Your task to perform on an android device: move an email to a new category in the gmail app Image 0: 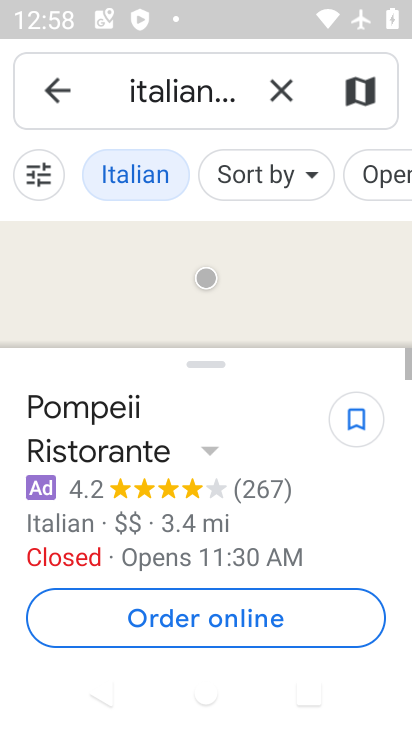
Step 0: press home button
Your task to perform on an android device: move an email to a new category in the gmail app Image 1: 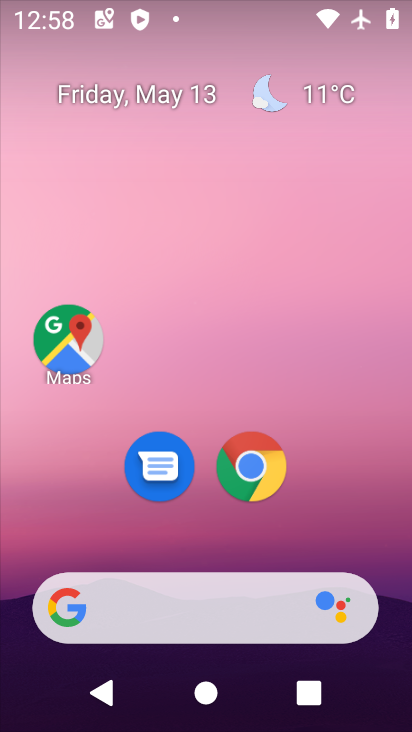
Step 1: drag from (273, 563) to (378, 2)
Your task to perform on an android device: move an email to a new category in the gmail app Image 2: 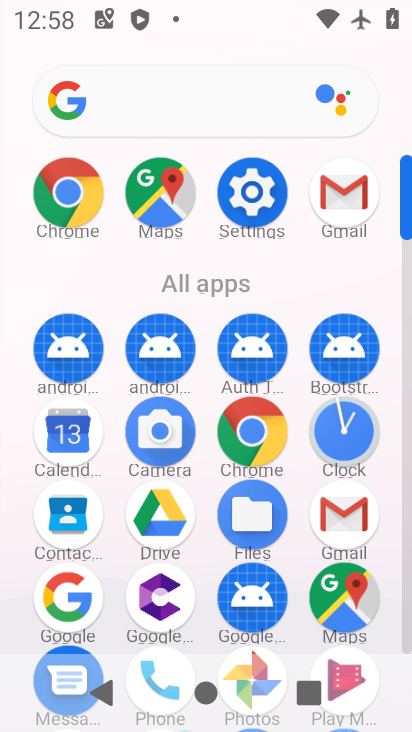
Step 2: click (333, 515)
Your task to perform on an android device: move an email to a new category in the gmail app Image 3: 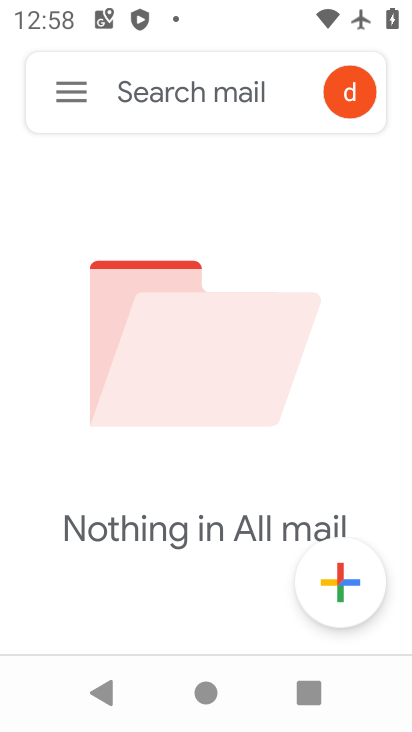
Step 3: click (88, 91)
Your task to perform on an android device: move an email to a new category in the gmail app Image 4: 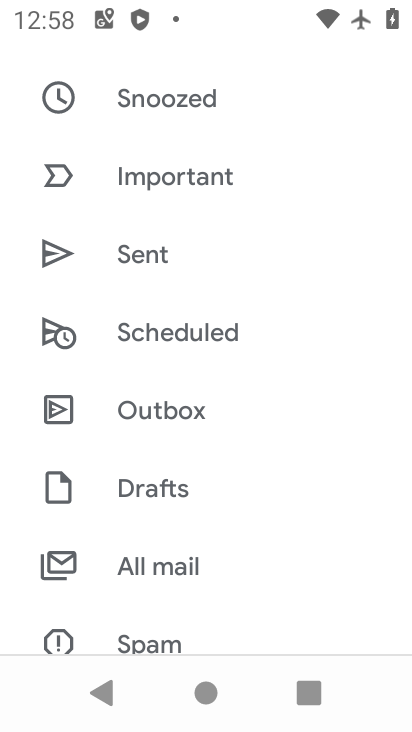
Step 4: click (192, 563)
Your task to perform on an android device: move an email to a new category in the gmail app Image 5: 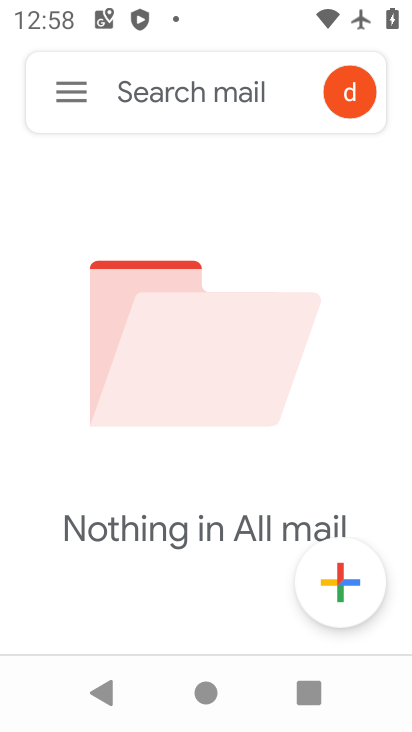
Step 5: task complete